Your task to perform on an android device: open app "Google Home" (install if not already installed) Image 0: 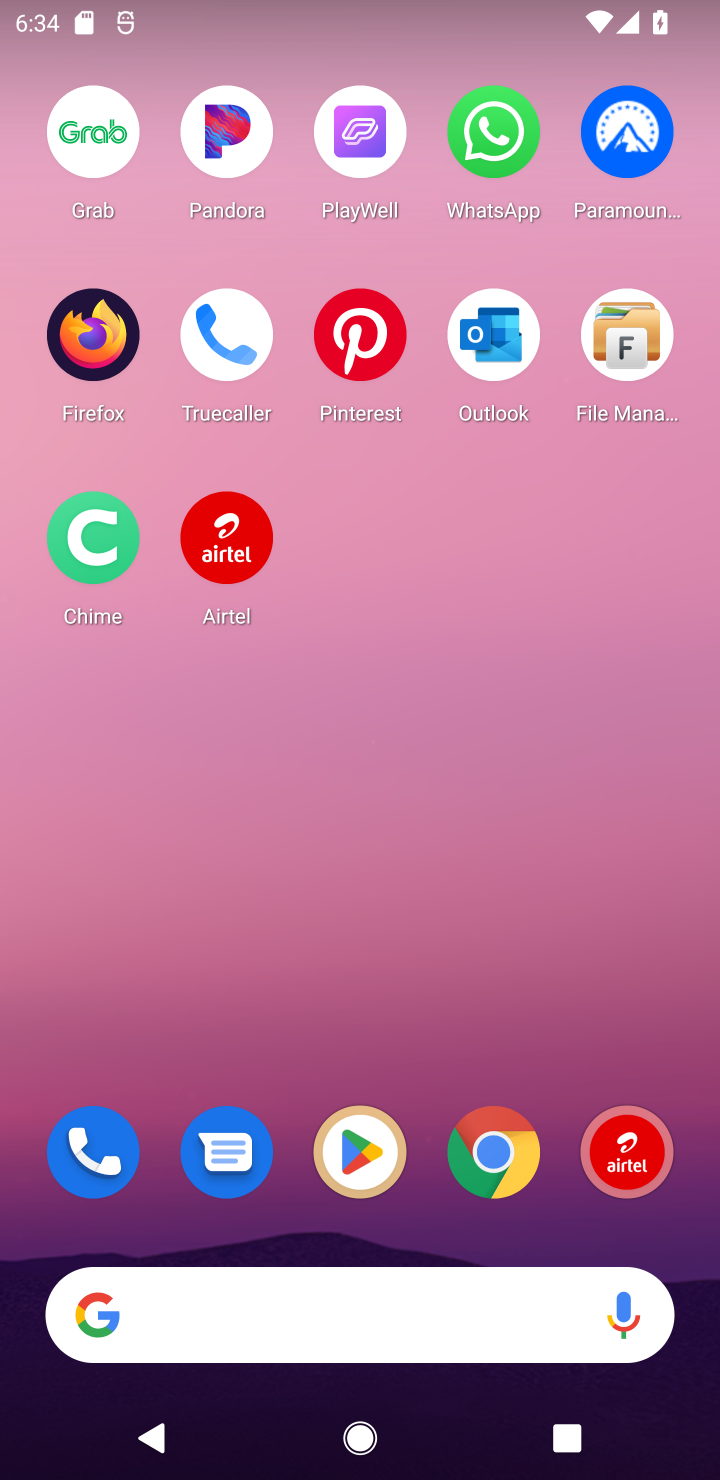
Step 0: click (366, 1139)
Your task to perform on an android device: open app "Google Home" (install if not already installed) Image 1: 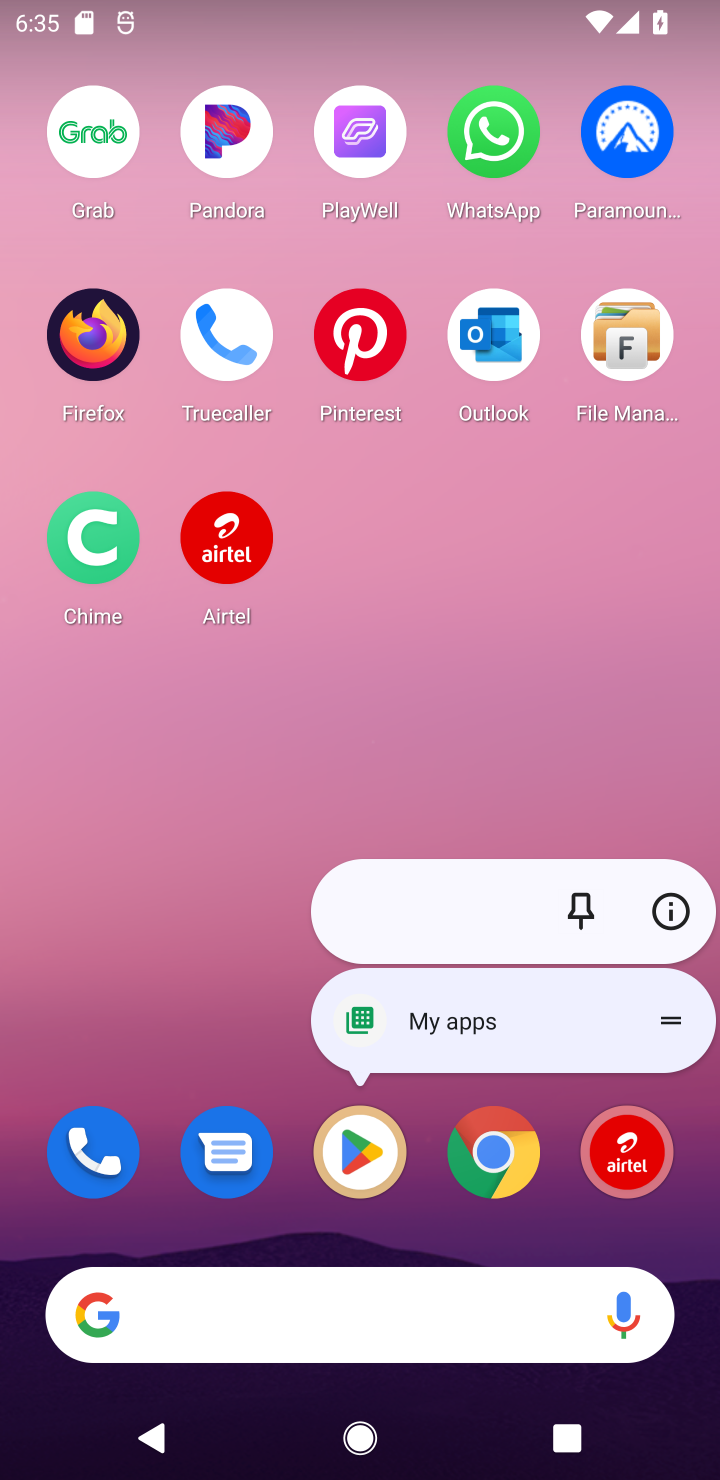
Step 1: click (356, 1158)
Your task to perform on an android device: open app "Google Home" (install if not already installed) Image 2: 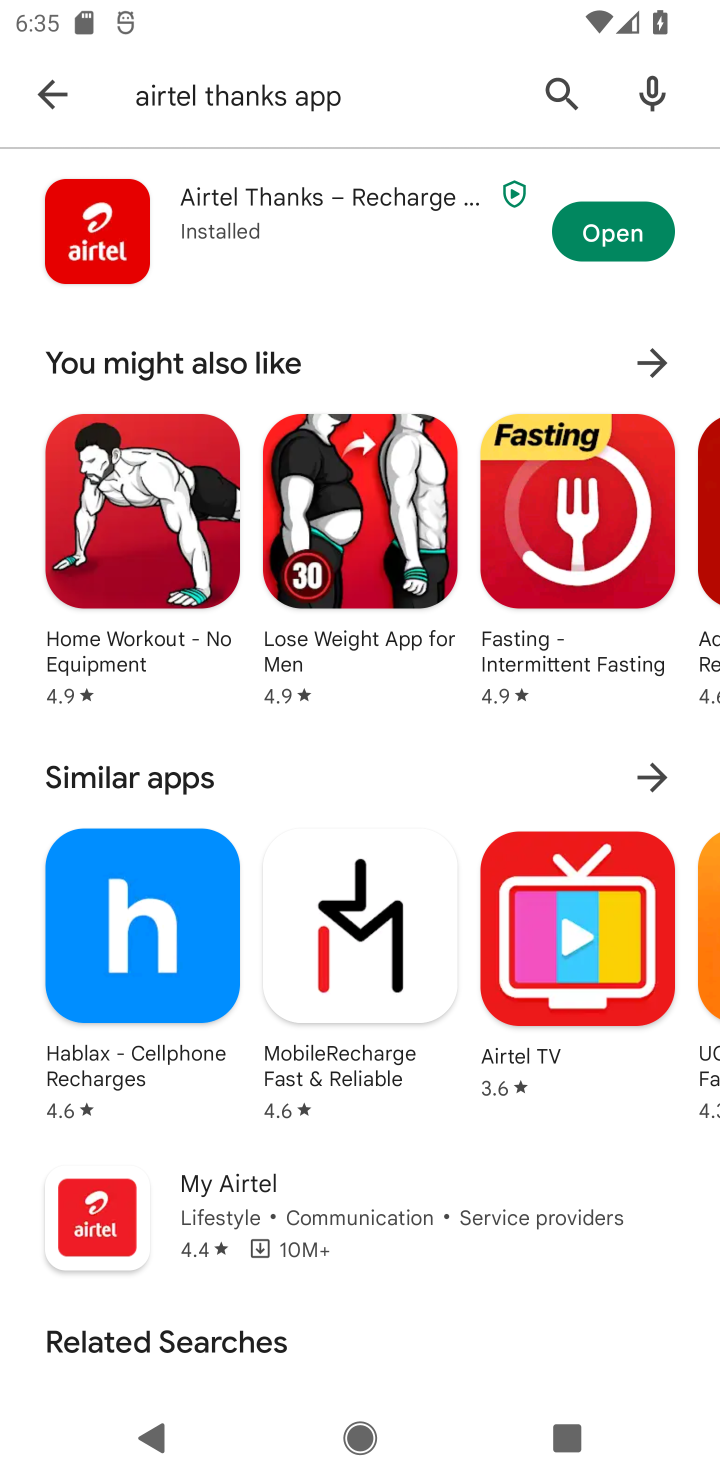
Step 2: click (609, 232)
Your task to perform on an android device: open app "Google Home" (install if not already installed) Image 3: 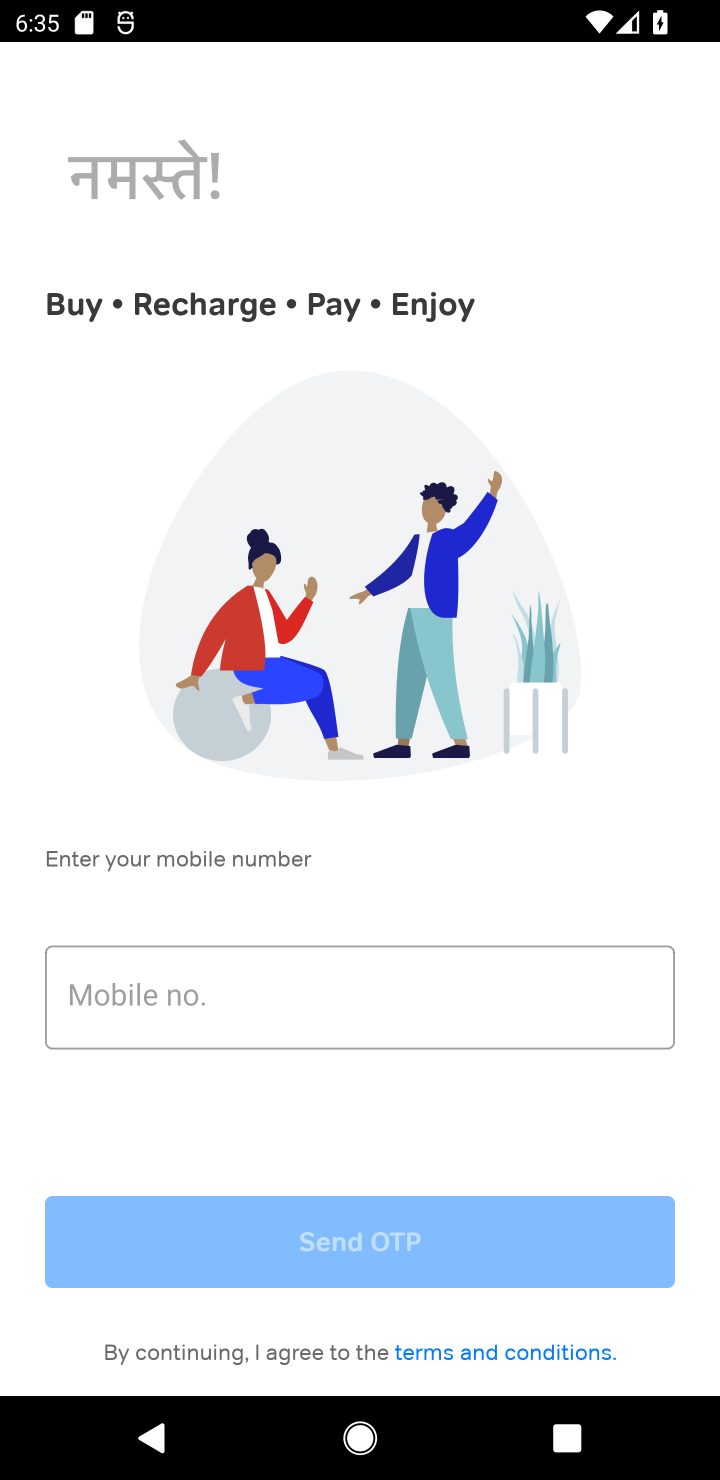
Step 3: press back button
Your task to perform on an android device: open app "Google Home" (install if not already installed) Image 4: 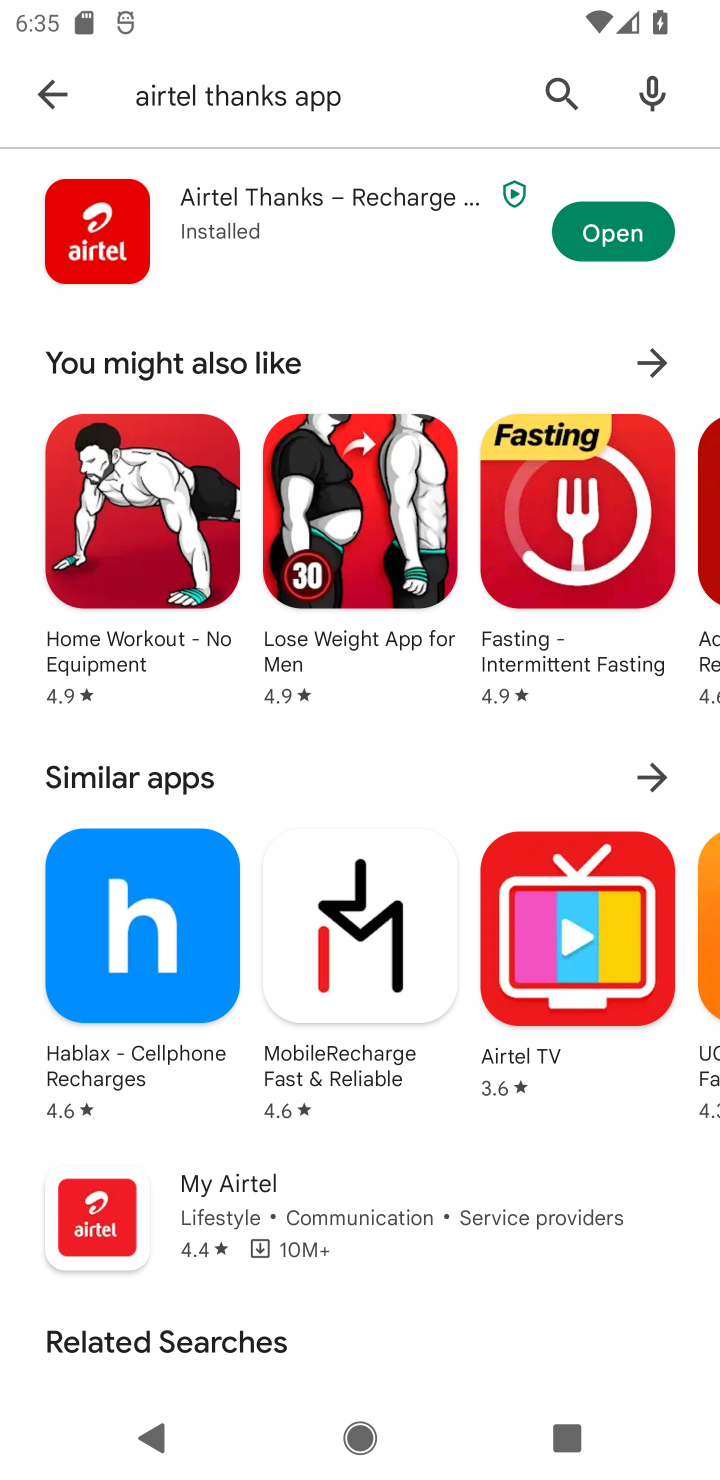
Step 4: click (559, 84)
Your task to perform on an android device: open app "Google Home" (install if not already installed) Image 5: 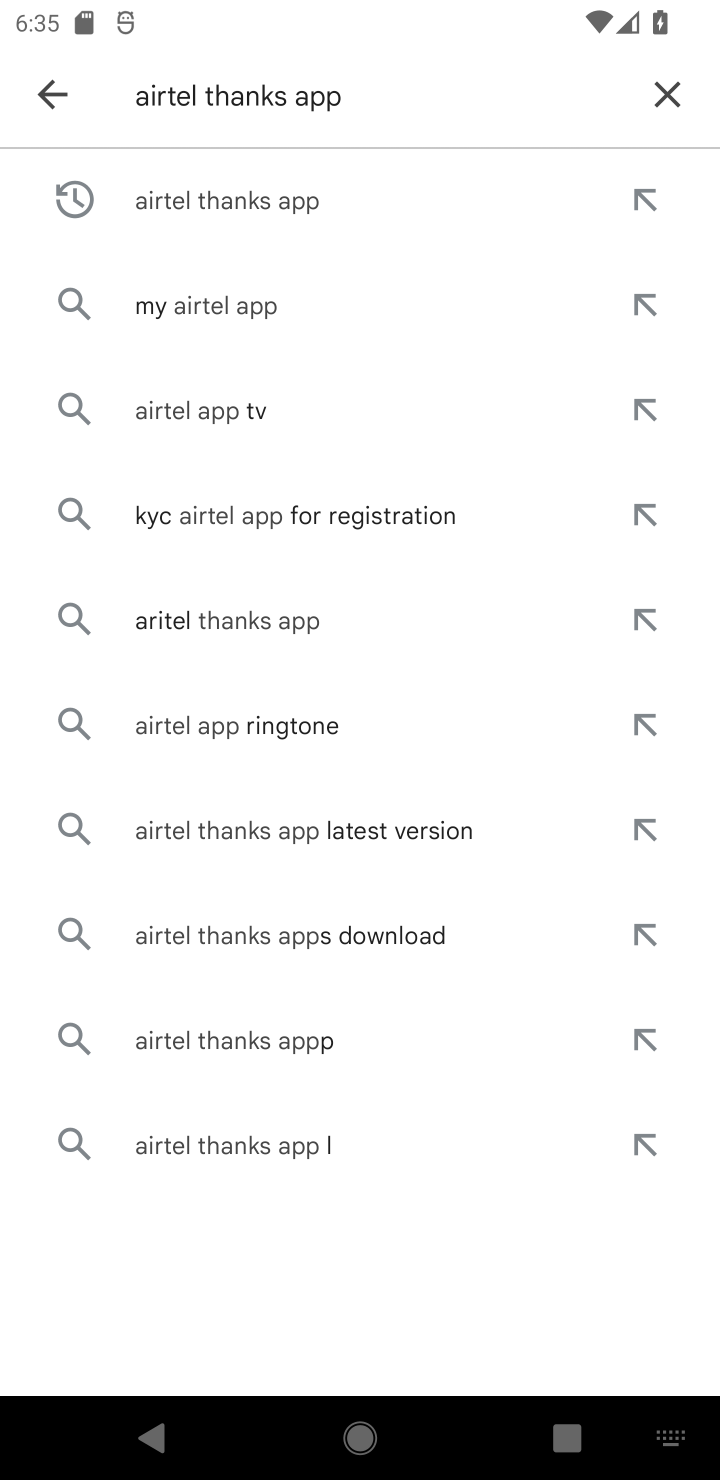
Step 5: click (665, 90)
Your task to perform on an android device: open app "Google Home" (install if not already installed) Image 6: 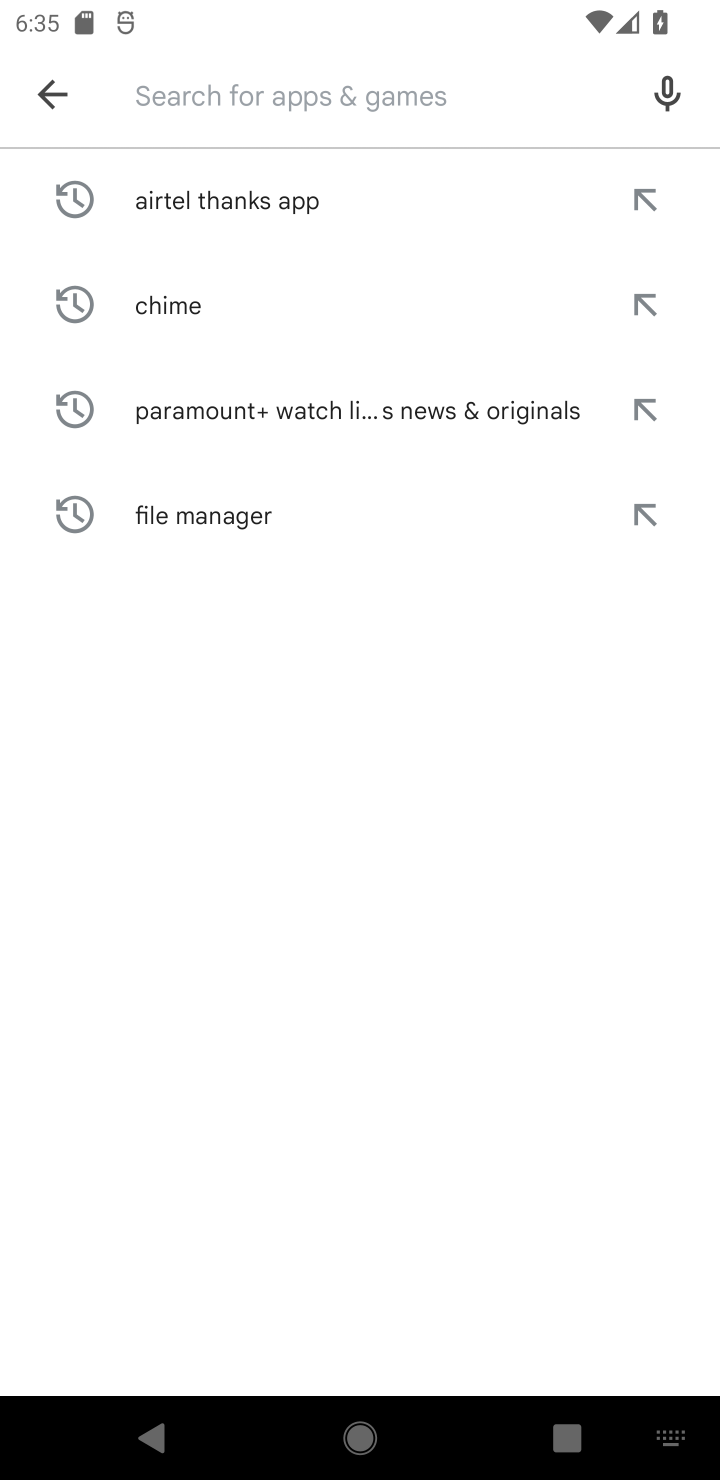
Step 6: click (239, 114)
Your task to perform on an android device: open app "Google Home" (install if not already installed) Image 7: 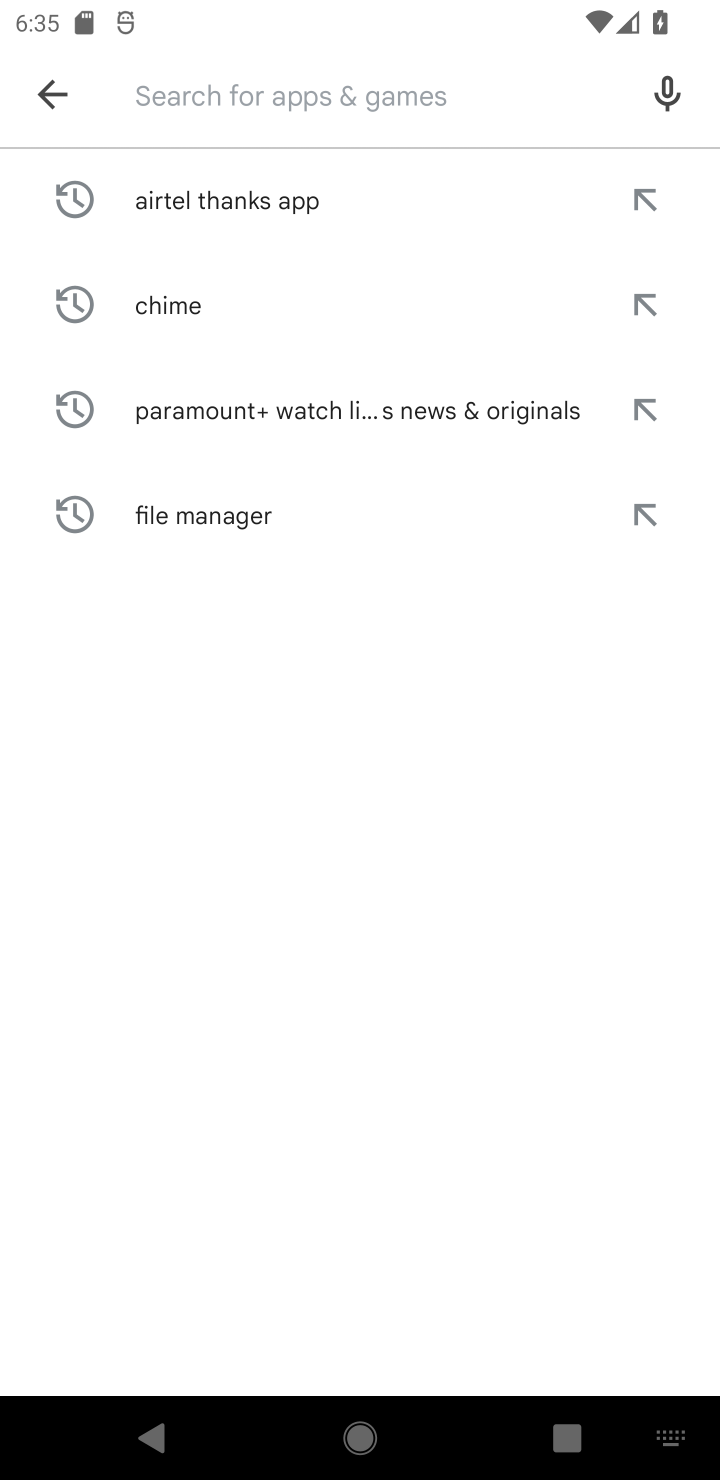
Step 7: type "Google Home"
Your task to perform on an android device: open app "Google Home" (install if not already installed) Image 8: 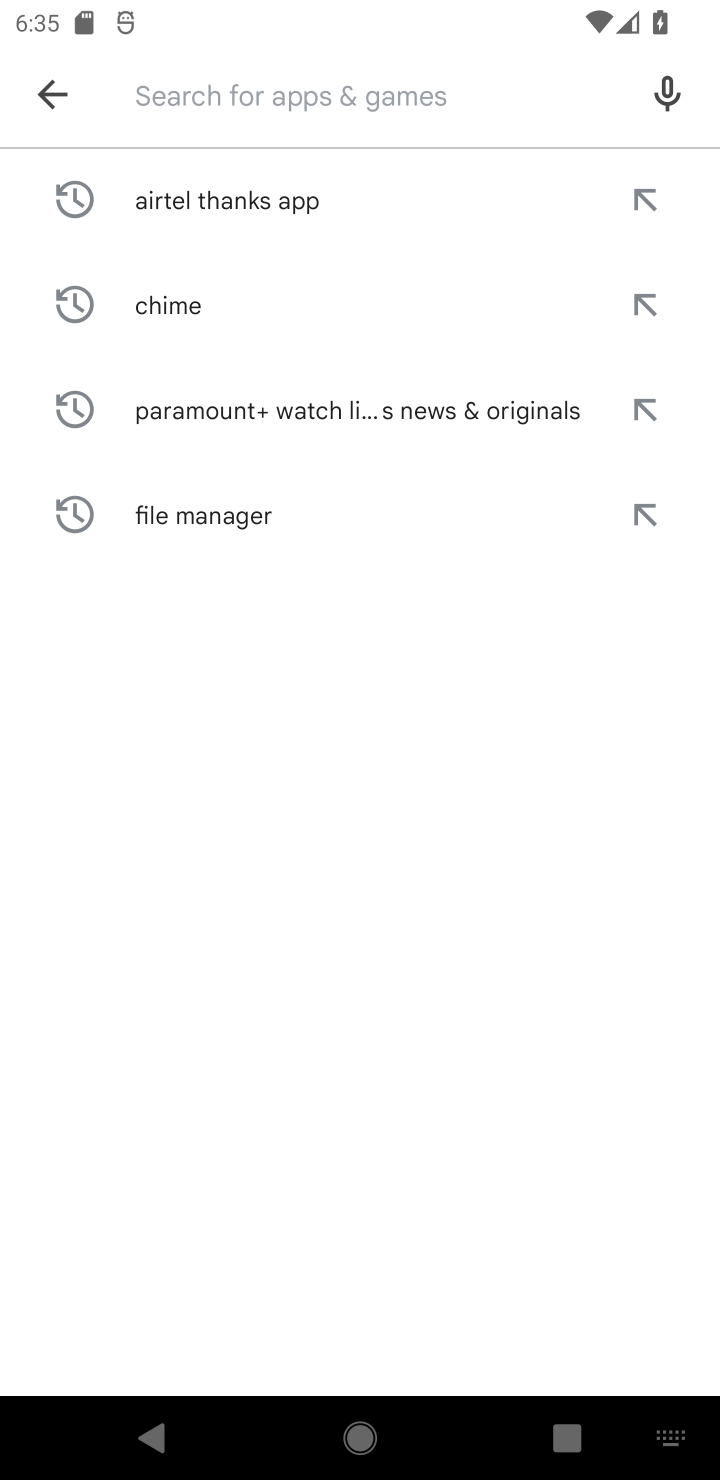
Step 8: click (454, 978)
Your task to perform on an android device: open app "Google Home" (install if not already installed) Image 9: 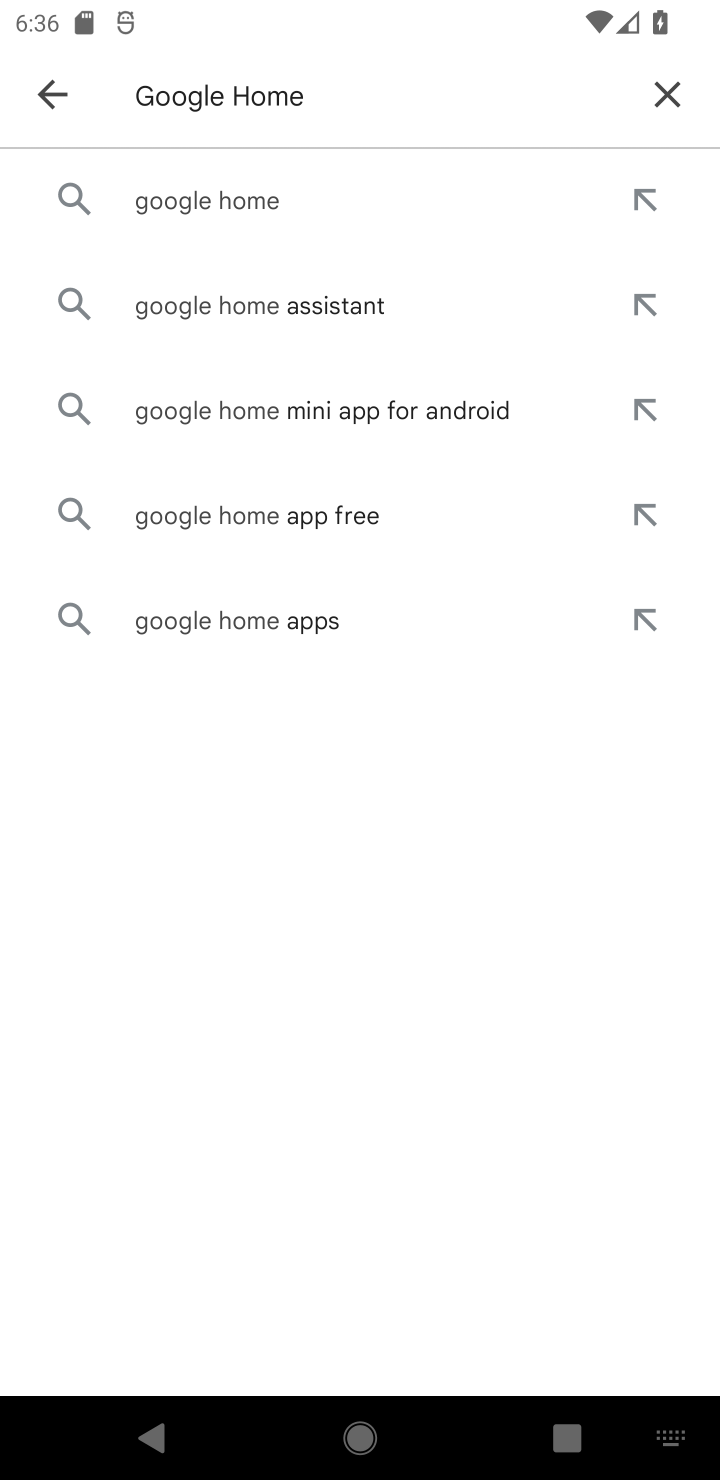
Step 9: click (230, 207)
Your task to perform on an android device: open app "Google Home" (install if not already installed) Image 10: 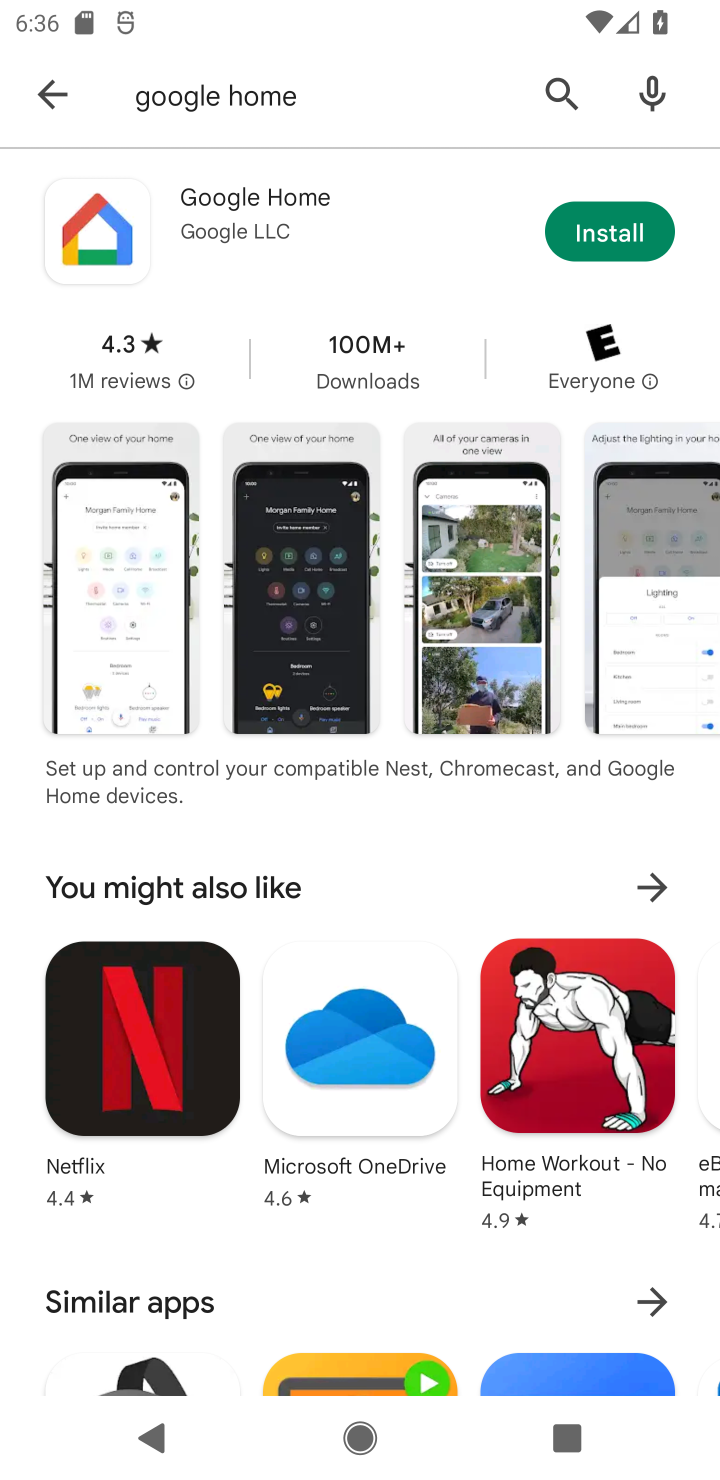
Step 10: click (600, 244)
Your task to perform on an android device: open app "Google Home" (install if not already installed) Image 11: 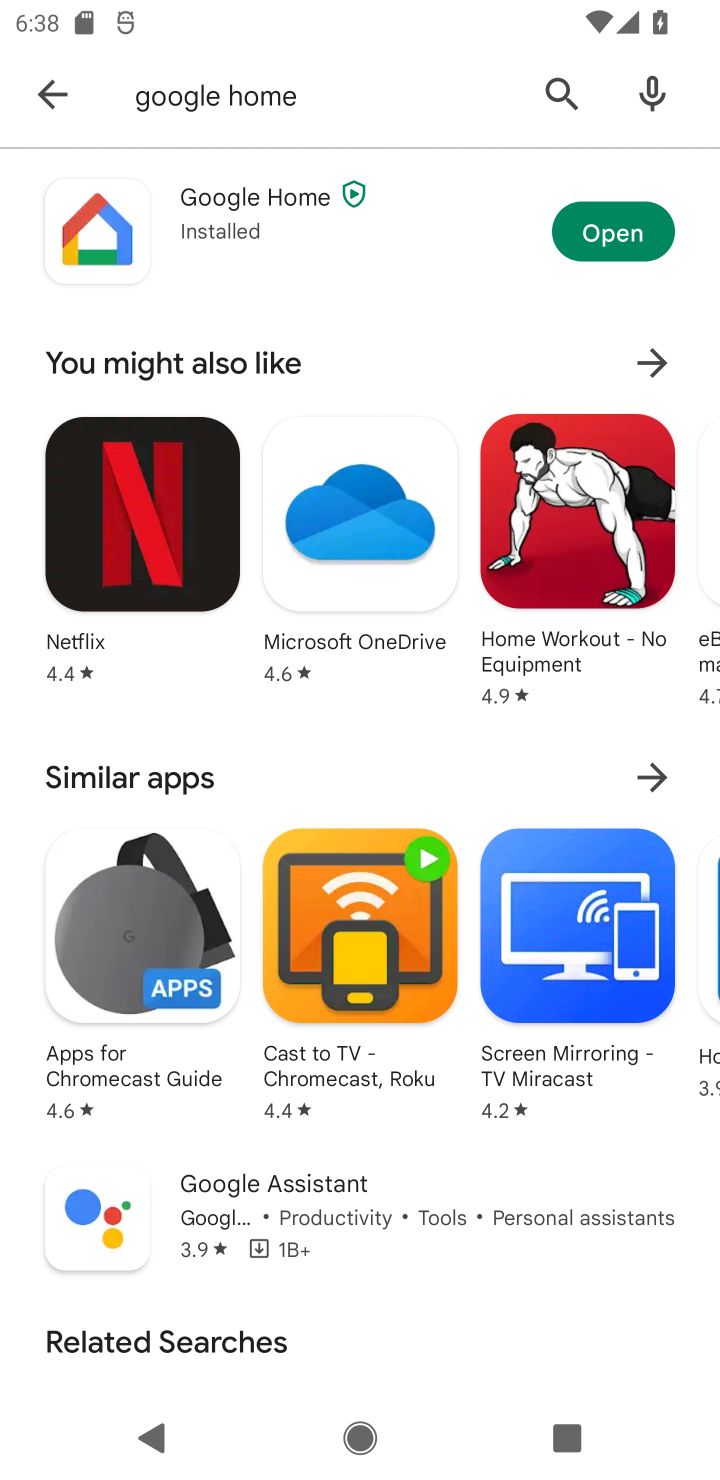
Step 11: click (637, 240)
Your task to perform on an android device: open app "Google Home" (install if not already installed) Image 12: 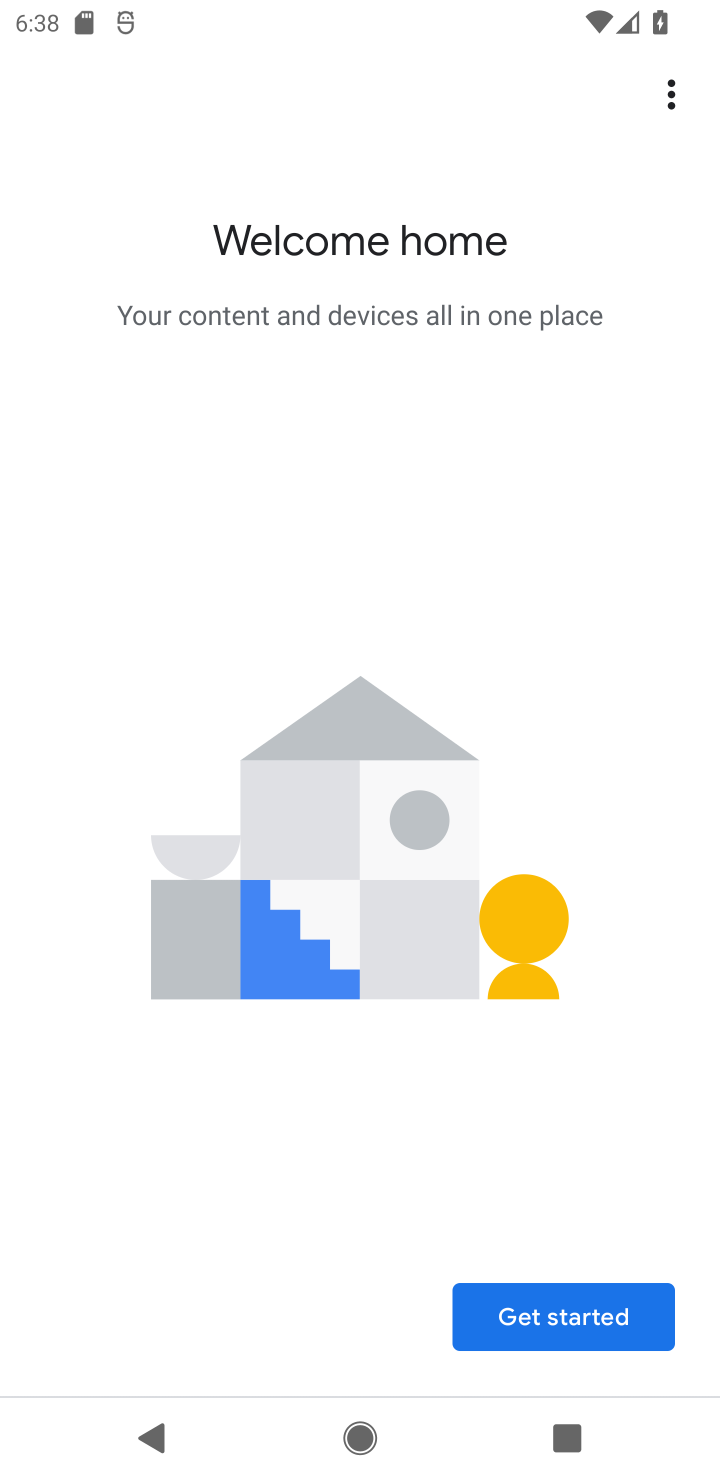
Step 12: click (579, 1314)
Your task to perform on an android device: open app "Google Home" (install if not already installed) Image 13: 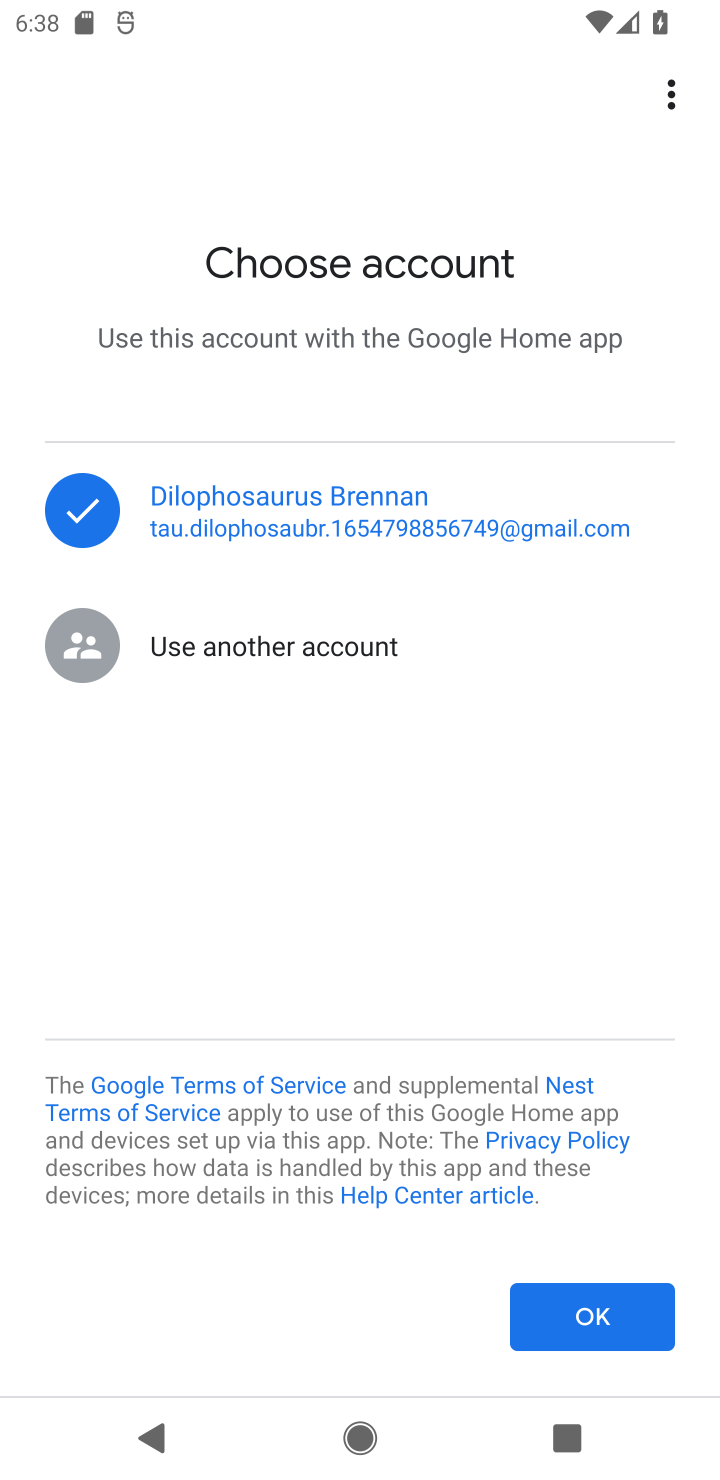
Step 13: click (592, 1326)
Your task to perform on an android device: open app "Google Home" (install if not already installed) Image 14: 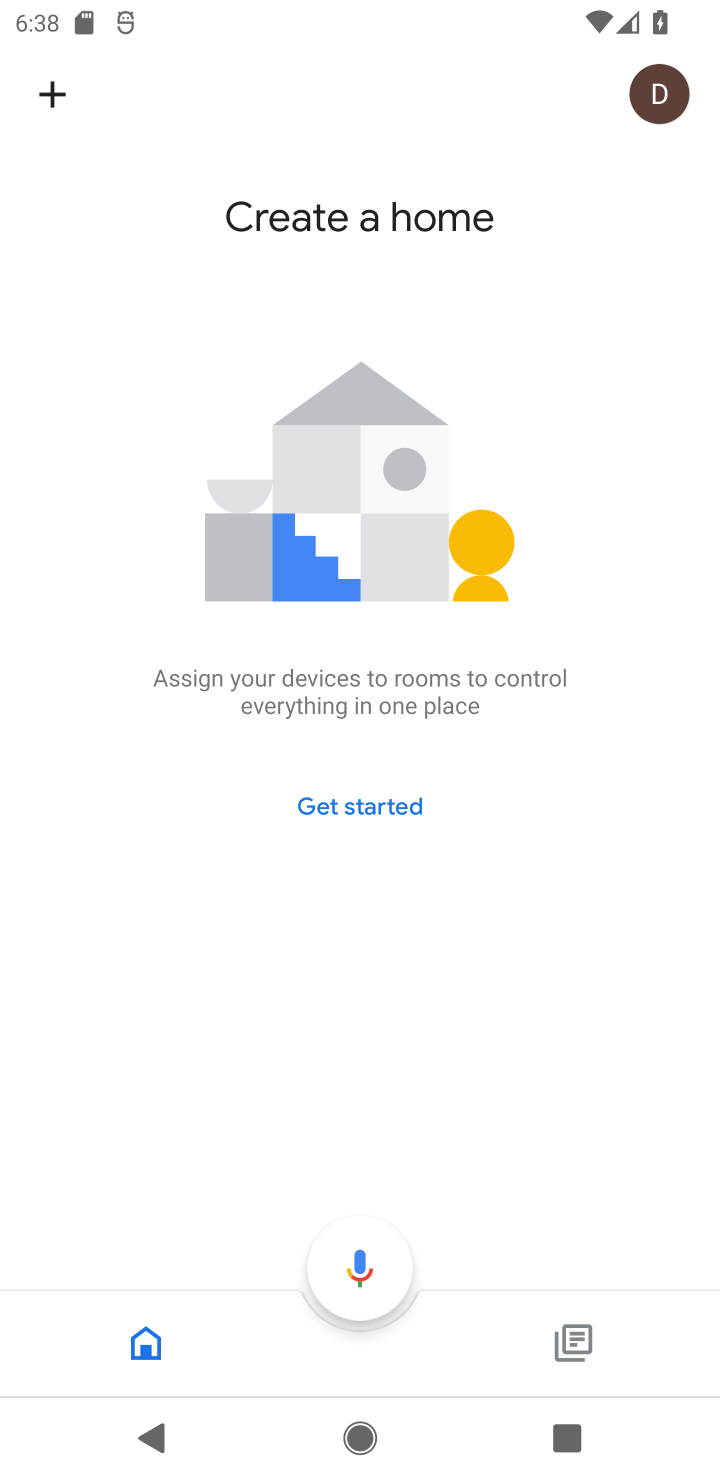
Step 14: task complete